Your task to perform on an android device: turn off improve location accuracy Image 0: 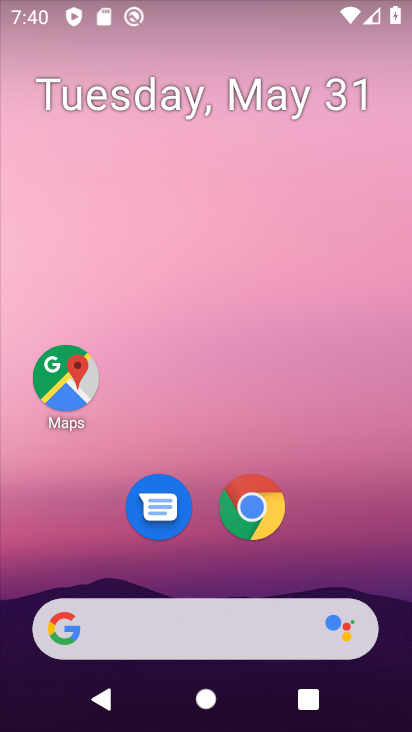
Step 0: drag from (341, 569) to (271, 30)
Your task to perform on an android device: turn off improve location accuracy Image 1: 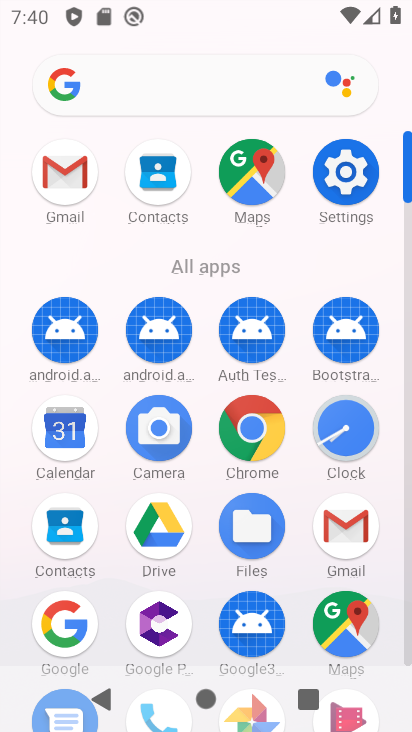
Step 1: click (344, 178)
Your task to perform on an android device: turn off improve location accuracy Image 2: 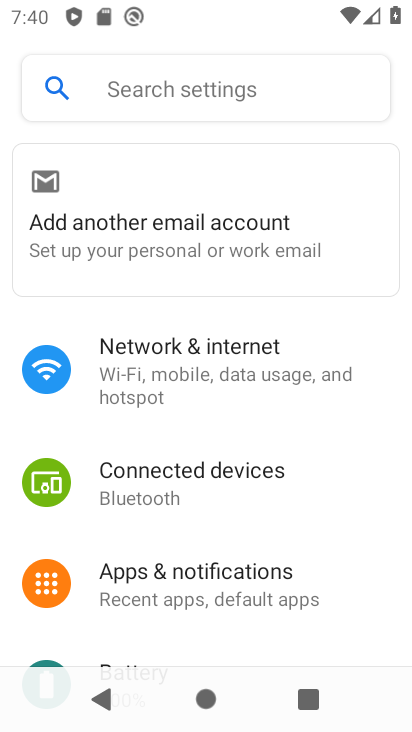
Step 2: drag from (370, 591) to (383, 80)
Your task to perform on an android device: turn off improve location accuracy Image 3: 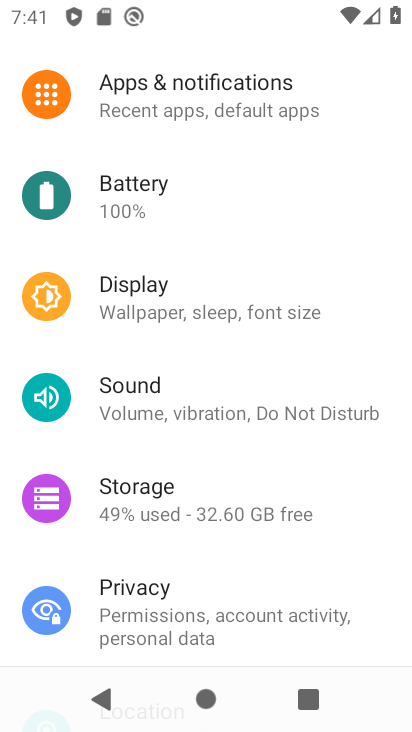
Step 3: drag from (313, 521) to (308, 253)
Your task to perform on an android device: turn off improve location accuracy Image 4: 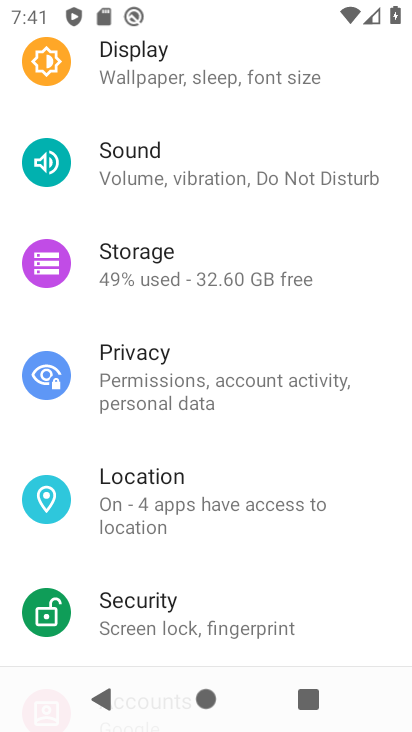
Step 4: click (136, 501)
Your task to perform on an android device: turn off improve location accuracy Image 5: 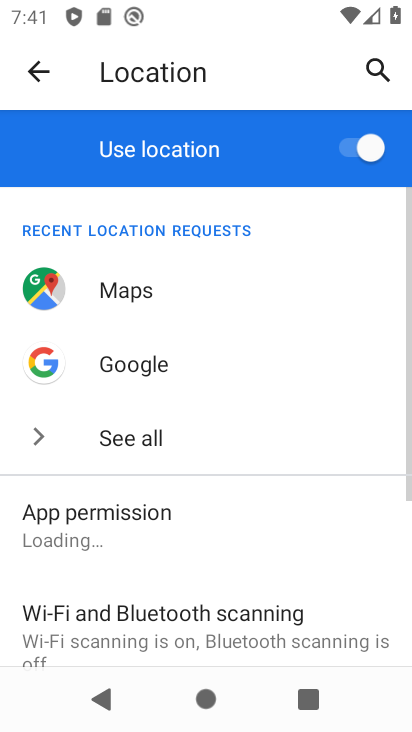
Step 5: drag from (207, 516) to (208, 249)
Your task to perform on an android device: turn off improve location accuracy Image 6: 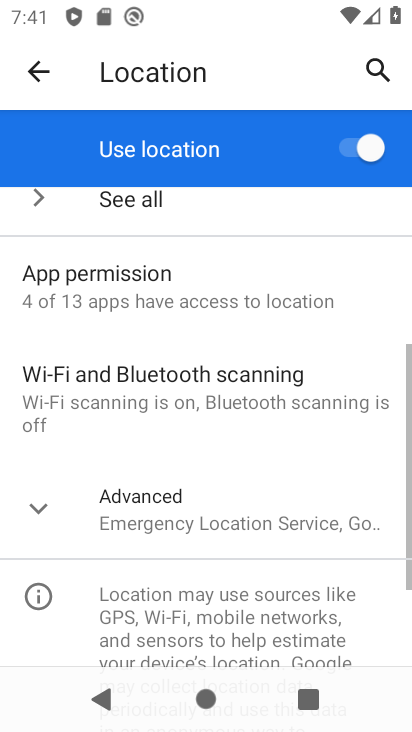
Step 6: click (36, 517)
Your task to perform on an android device: turn off improve location accuracy Image 7: 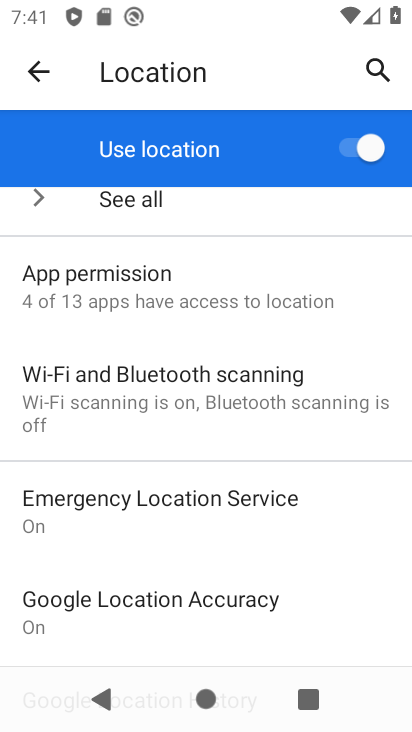
Step 7: click (140, 608)
Your task to perform on an android device: turn off improve location accuracy Image 8: 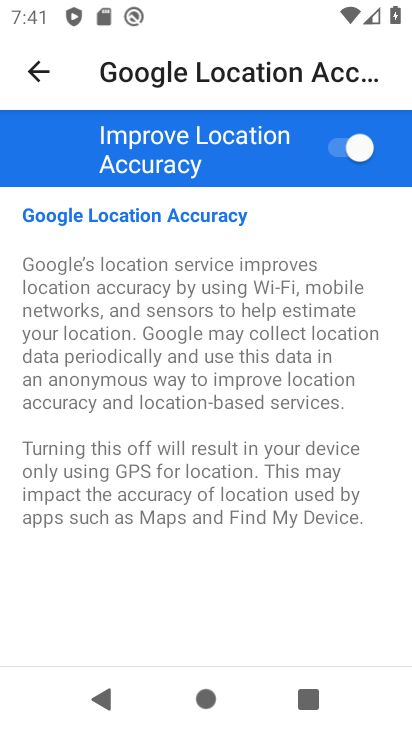
Step 8: click (358, 160)
Your task to perform on an android device: turn off improve location accuracy Image 9: 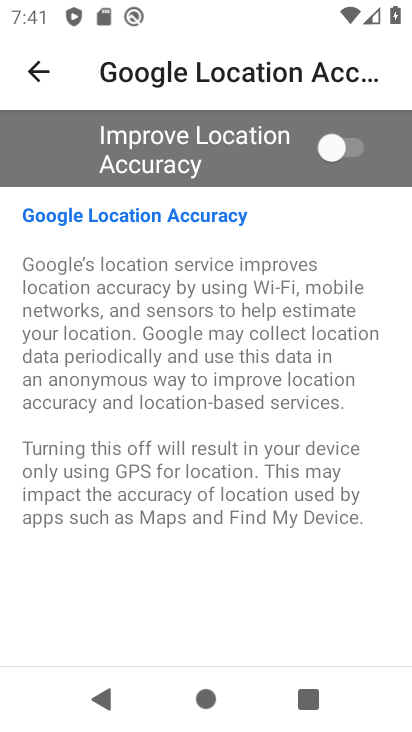
Step 9: task complete